Your task to perform on an android device: Go to wifi settings Image 0: 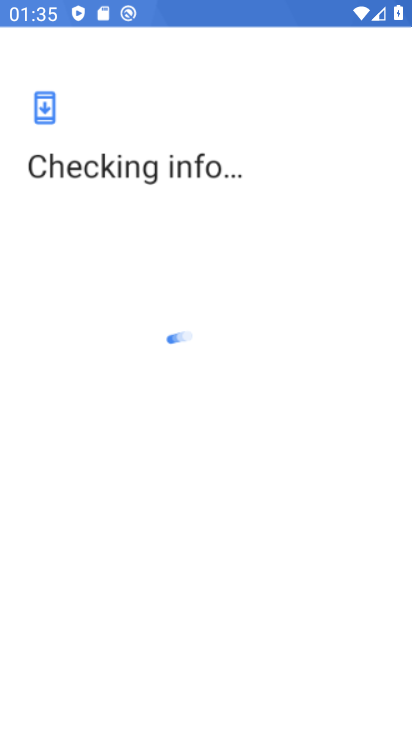
Step 0: drag from (237, 619) to (268, 87)
Your task to perform on an android device: Go to wifi settings Image 1: 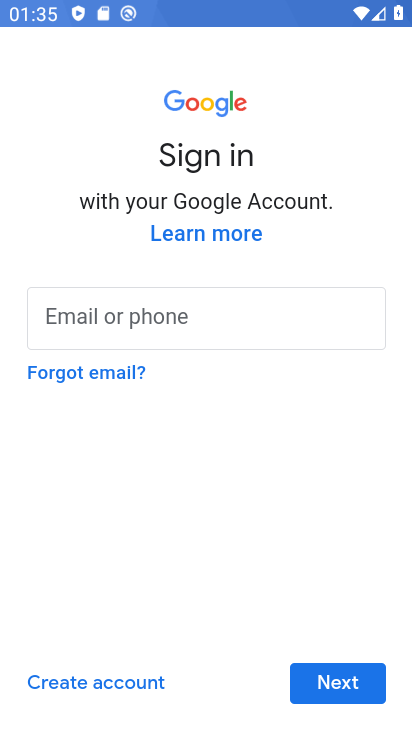
Step 1: press home button
Your task to perform on an android device: Go to wifi settings Image 2: 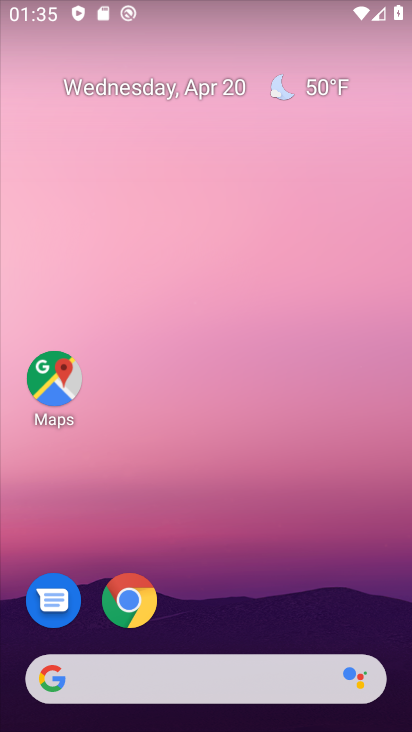
Step 2: drag from (219, 618) to (210, 180)
Your task to perform on an android device: Go to wifi settings Image 3: 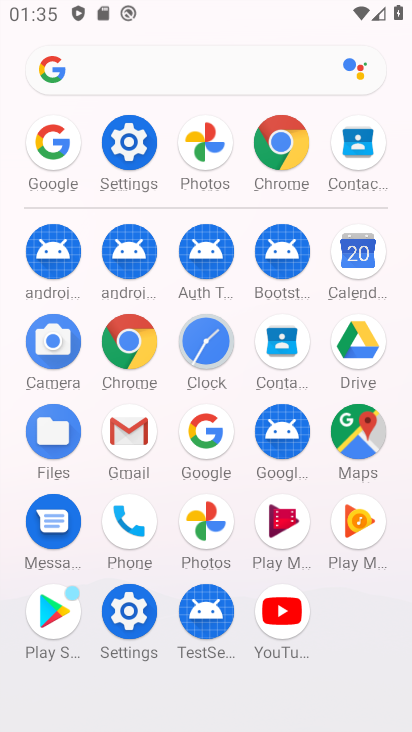
Step 3: click (127, 132)
Your task to perform on an android device: Go to wifi settings Image 4: 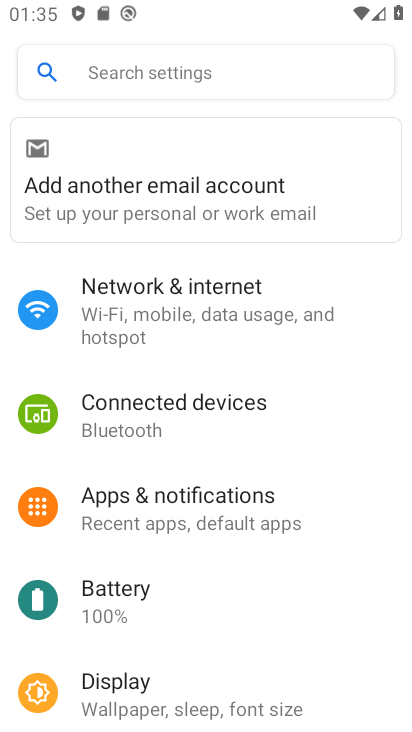
Step 4: click (149, 302)
Your task to perform on an android device: Go to wifi settings Image 5: 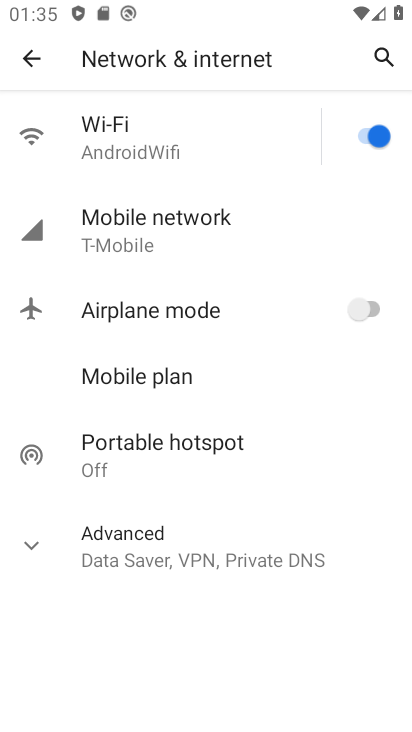
Step 5: click (181, 107)
Your task to perform on an android device: Go to wifi settings Image 6: 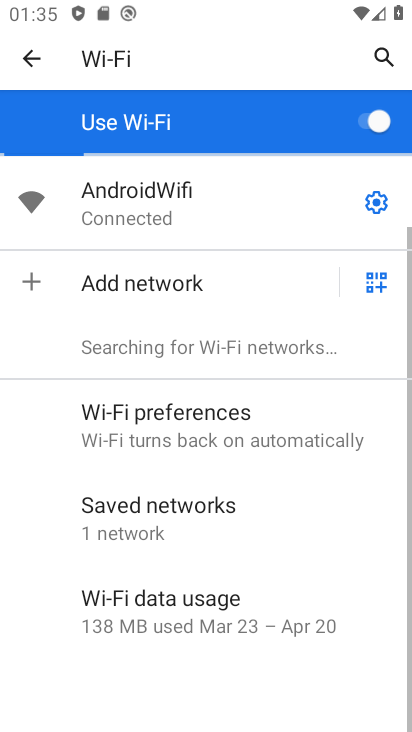
Step 6: click (382, 197)
Your task to perform on an android device: Go to wifi settings Image 7: 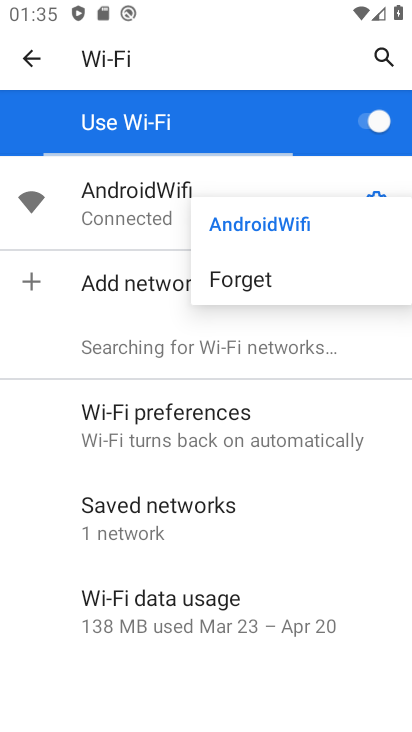
Step 7: click (336, 183)
Your task to perform on an android device: Go to wifi settings Image 8: 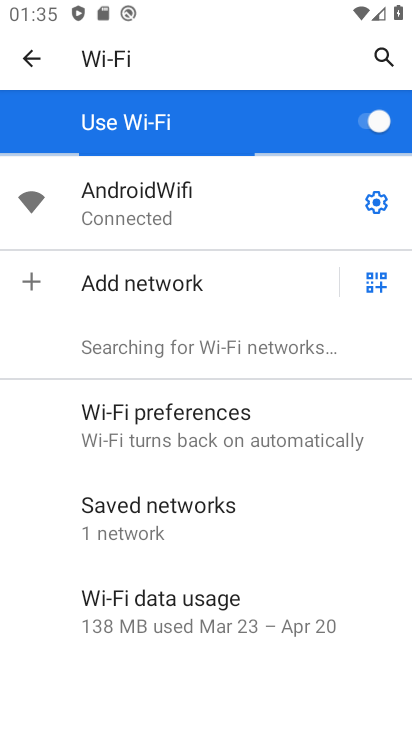
Step 8: click (377, 206)
Your task to perform on an android device: Go to wifi settings Image 9: 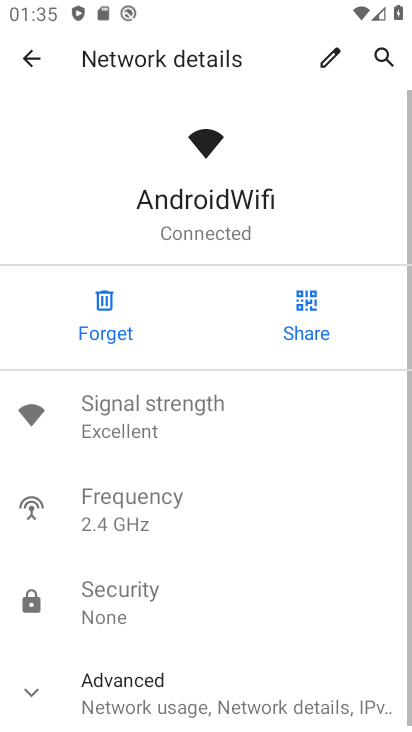
Step 9: task complete